Your task to perform on an android device: move a message to another label in the gmail app Image 0: 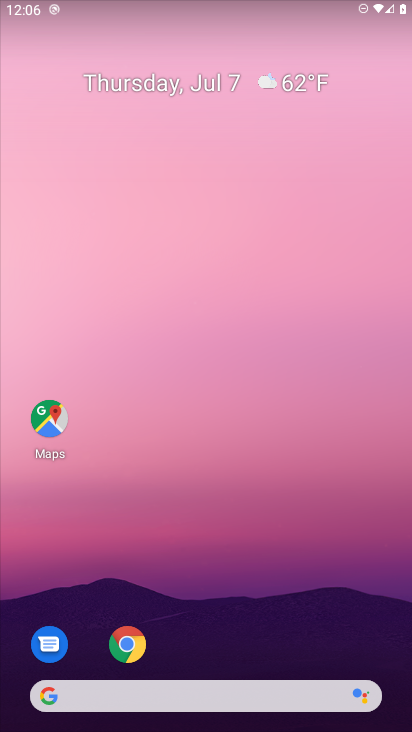
Step 0: press home button
Your task to perform on an android device: move a message to another label in the gmail app Image 1: 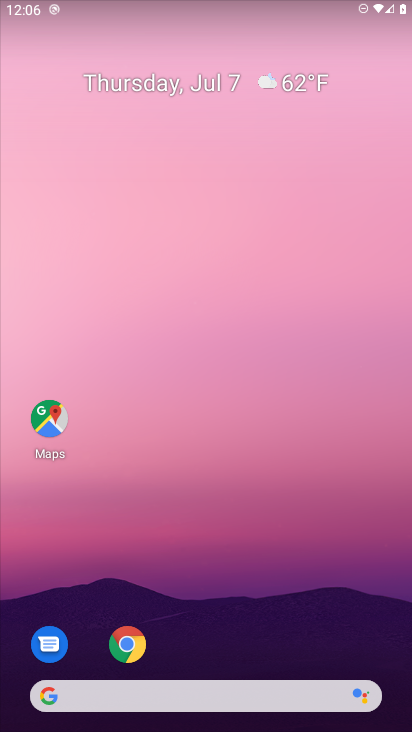
Step 1: drag from (281, 583) to (245, 87)
Your task to perform on an android device: move a message to another label in the gmail app Image 2: 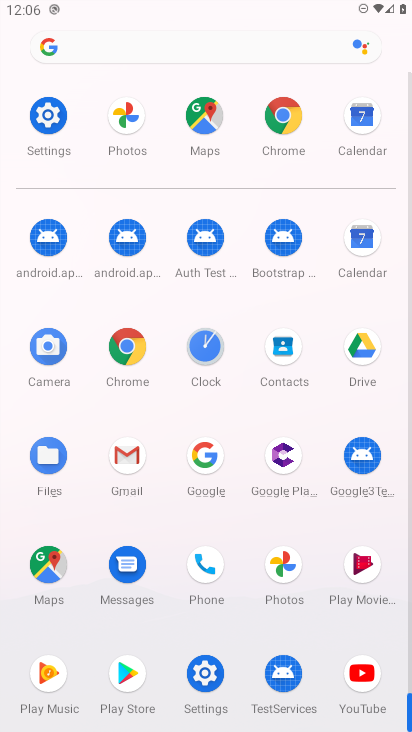
Step 2: click (122, 458)
Your task to perform on an android device: move a message to another label in the gmail app Image 3: 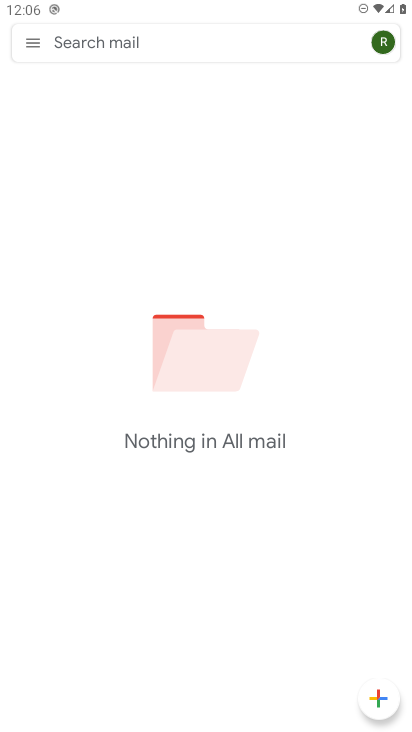
Step 3: click (39, 49)
Your task to perform on an android device: move a message to another label in the gmail app Image 4: 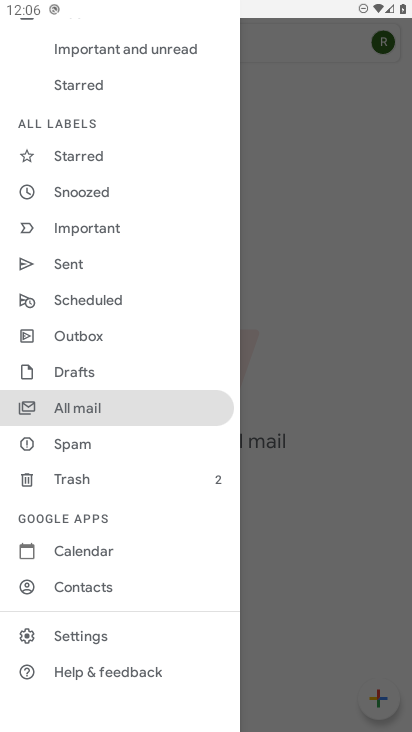
Step 4: click (81, 409)
Your task to perform on an android device: move a message to another label in the gmail app Image 5: 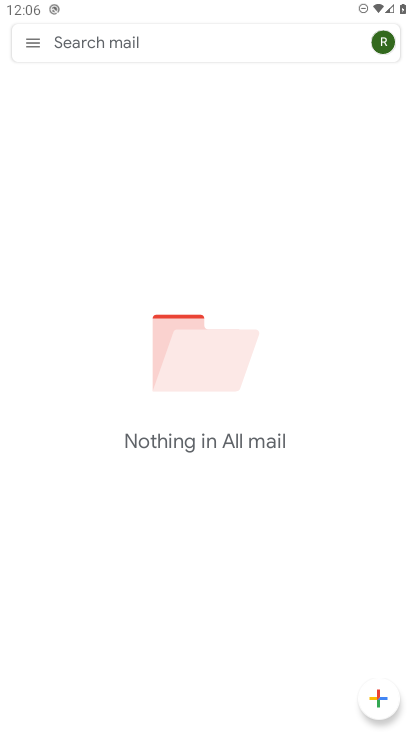
Step 5: task complete